Your task to perform on an android device: Is it going to rain this weekend? Image 0: 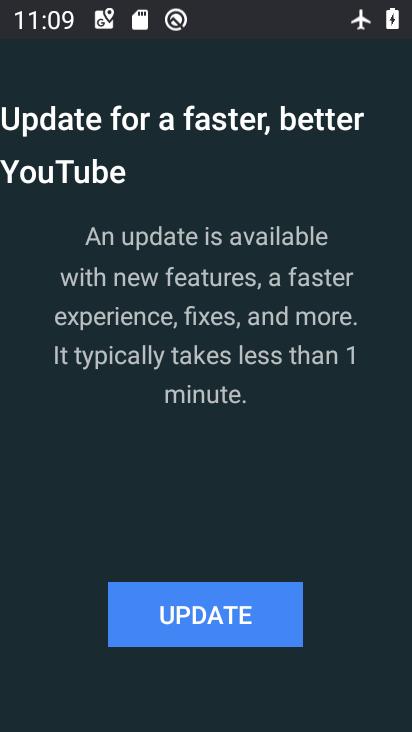
Step 0: press home button
Your task to perform on an android device: Is it going to rain this weekend? Image 1: 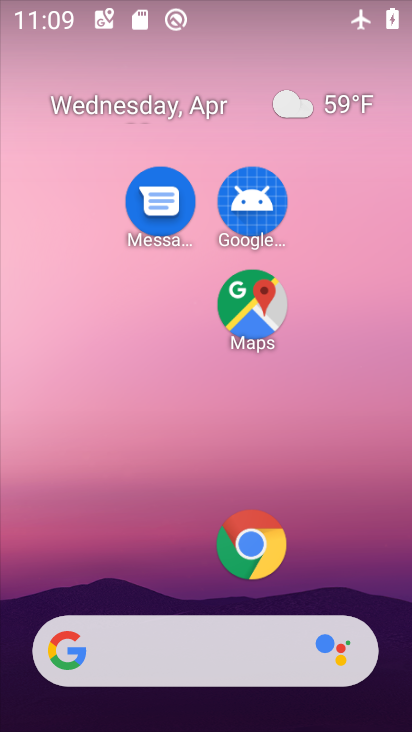
Step 1: drag from (175, 211) to (175, 113)
Your task to perform on an android device: Is it going to rain this weekend? Image 2: 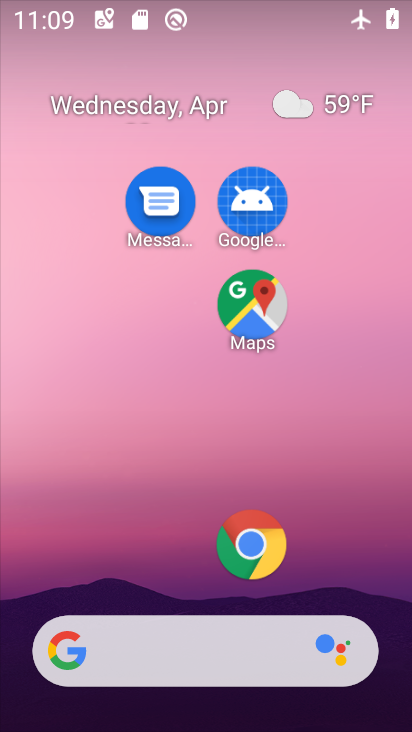
Step 2: drag from (194, 589) to (194, 190)
Your task to perform on an android device: Is it going to rain this weekend? Image 3: 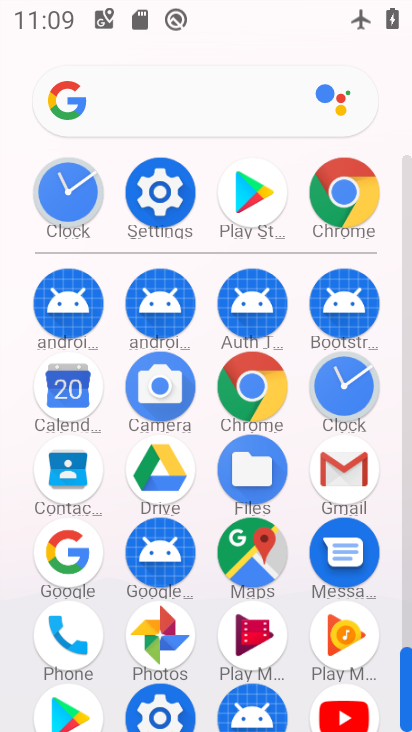
Step 3: click (78, 553)
Your task to perform on an android device: Is it going to rain this weekend? Image 4: 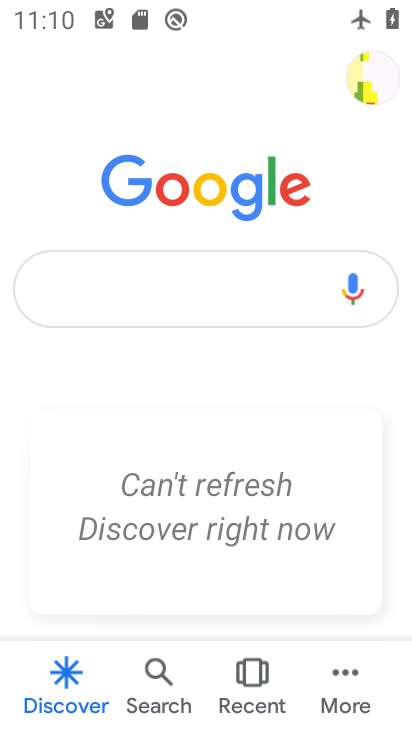
Step 4: task complete